Your task to perform on an android device: Open network settings Image 0: 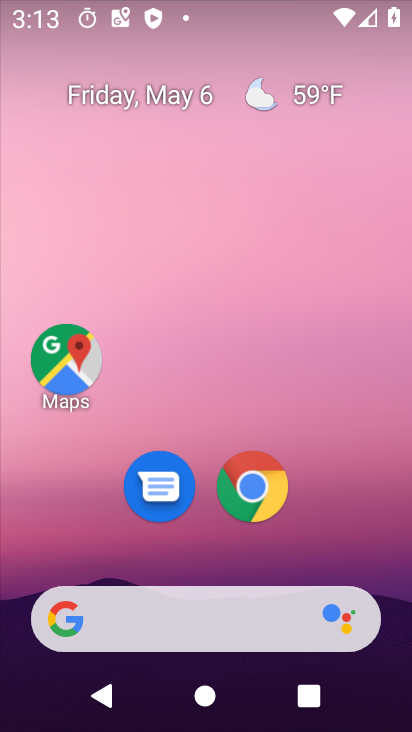
Step 0: drag from (321, 530) to (306, 63)
Your task to perform on an android device: Open network settings Image 1: 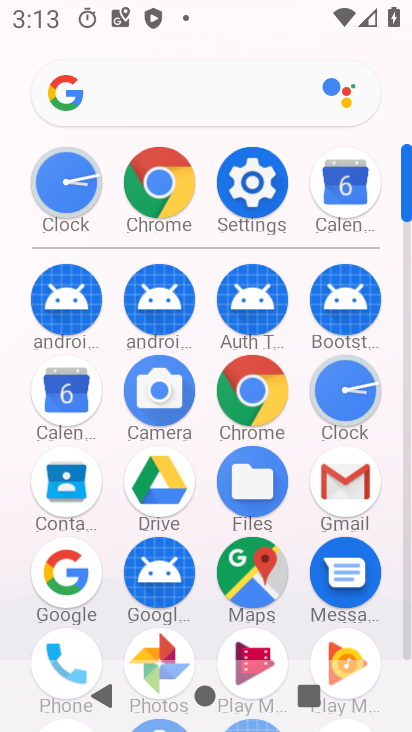
Step 1: click (261, 180)
Your task to perform on an android device: Open network settings Image 2: 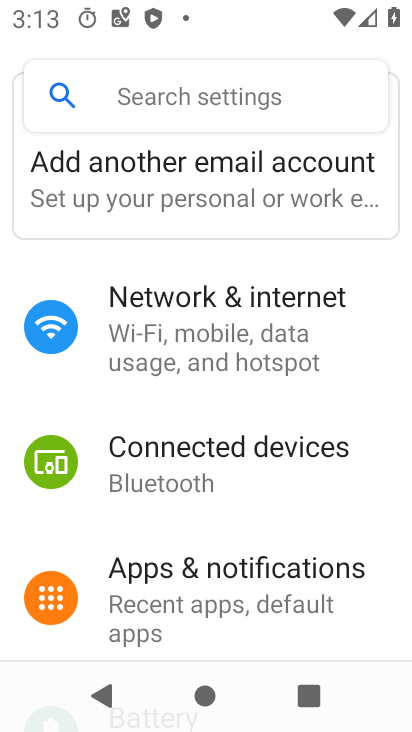
Step 2: drag from (219, 512) to (211, 289)
Your task to perform on an android device: Open network settings Image 3: 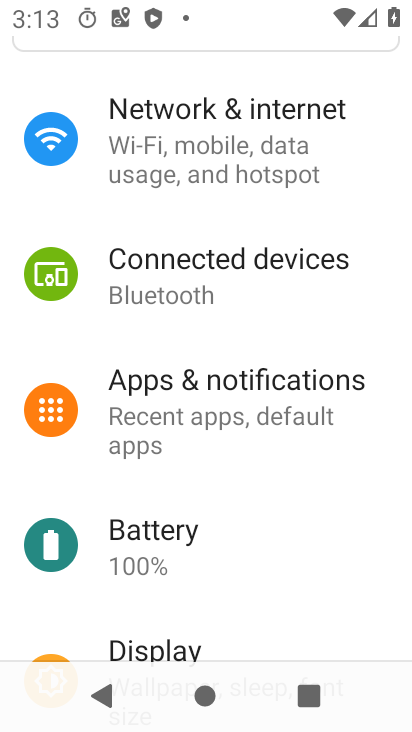
Step 3: click (171, 117)
Your task to perform on an android device: Open network settings Image 4: 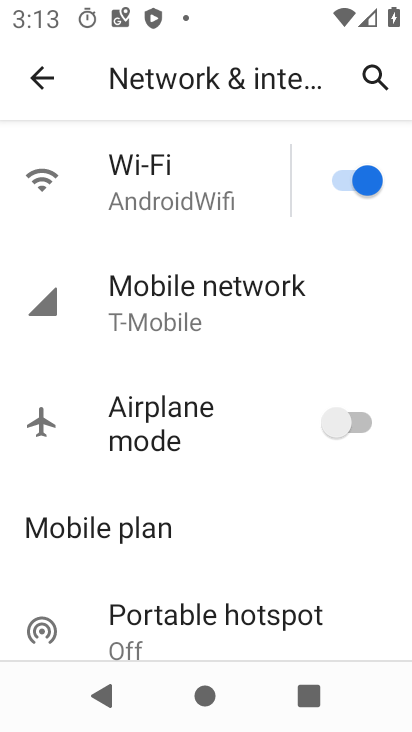
Step 4: task complete